Your task to perform on an android device: check storage Image 0: 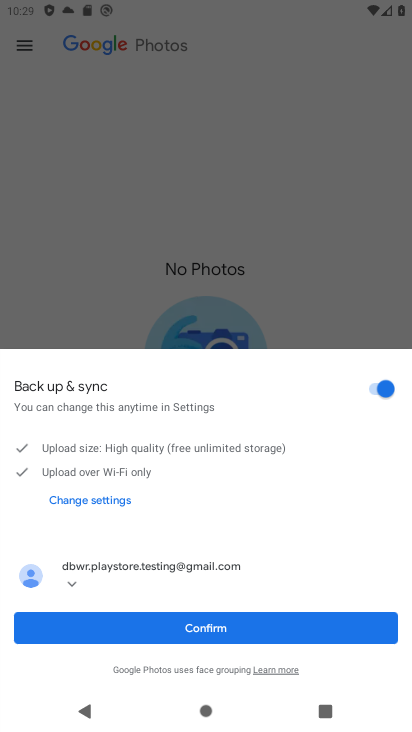
Step 0: press home button
Your task to perform on an android device: check storage Image 1: 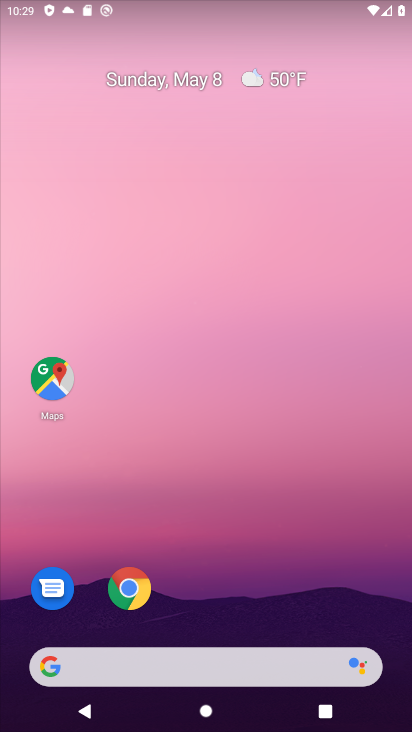
Step 1: drag from (239, 621) to (237, 39)
Your task to perform on an android device: check storage Image 2: 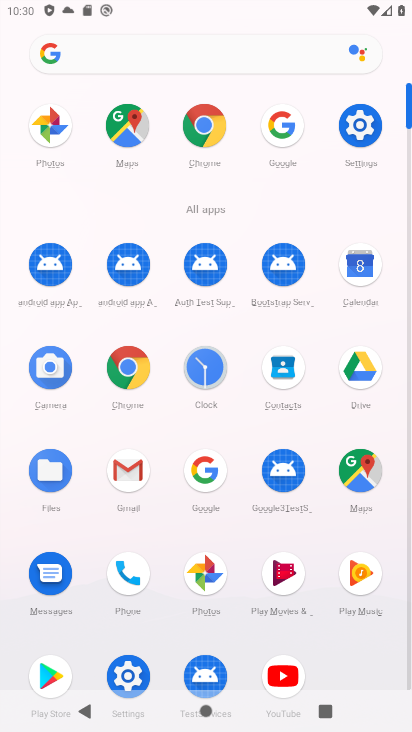
Step 2: click (358, 139)
Your task to perform on an android device: check storage Image 3: 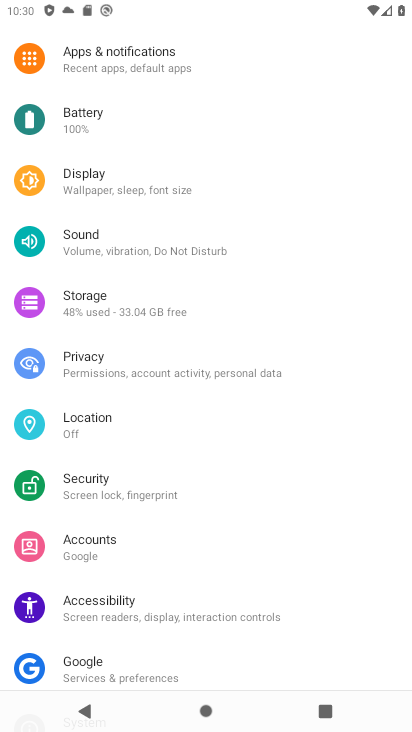
Step 3: click (140, 305)
Your task to perform on an android device: check storage Image 4: 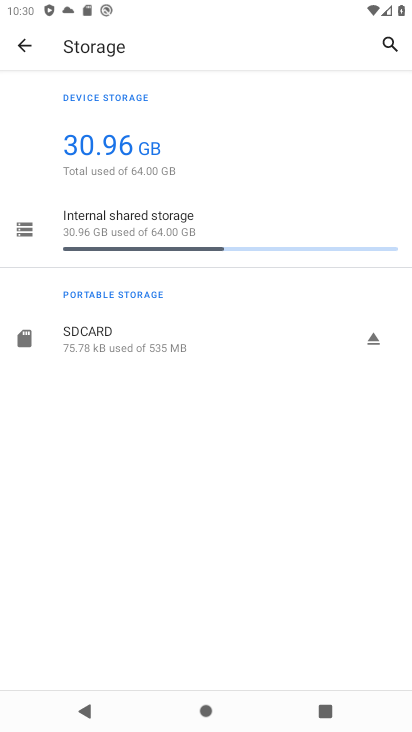
Step 4: task complete